Your task to perform on an android device: Search for 3d printer on AliExpress Image 0: 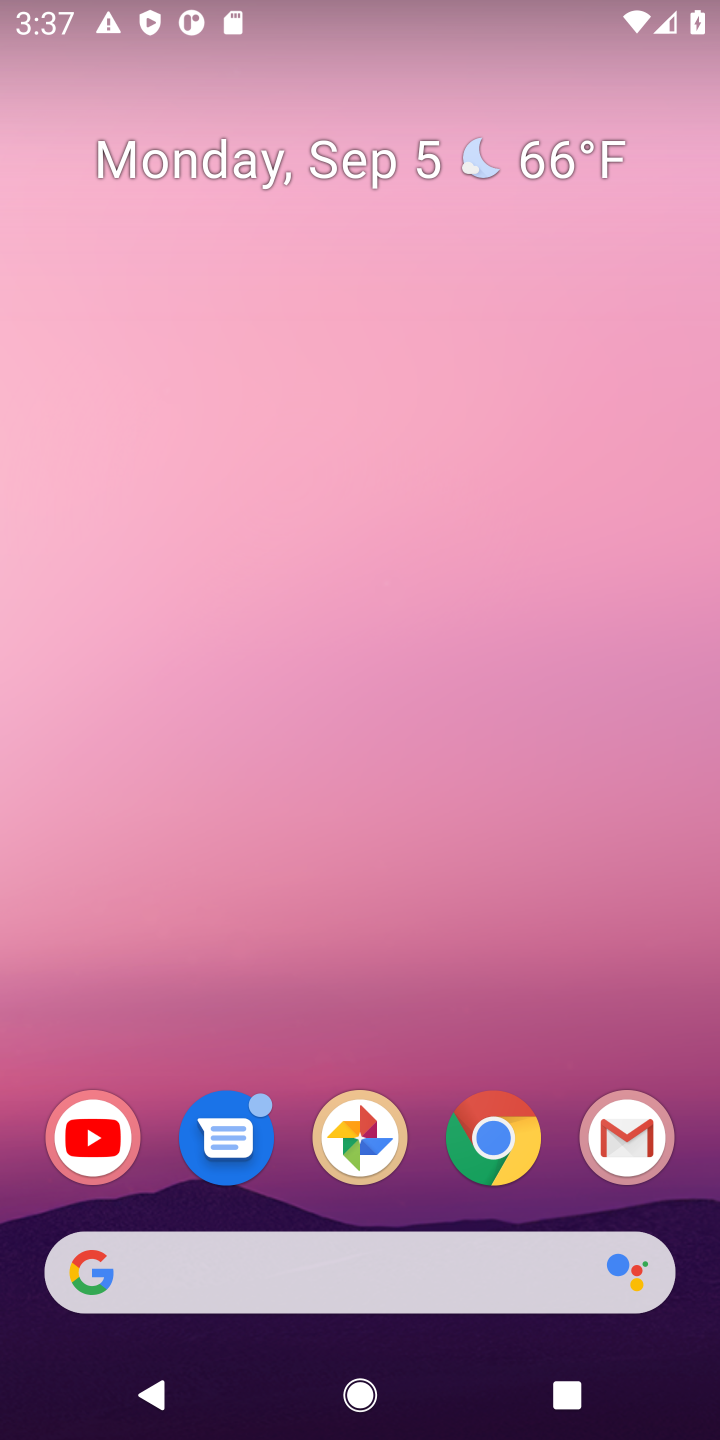
Step 0: click (462, 1158)
Your task to perform on an android device: Search for 3d printer on AliExpress Image 1: 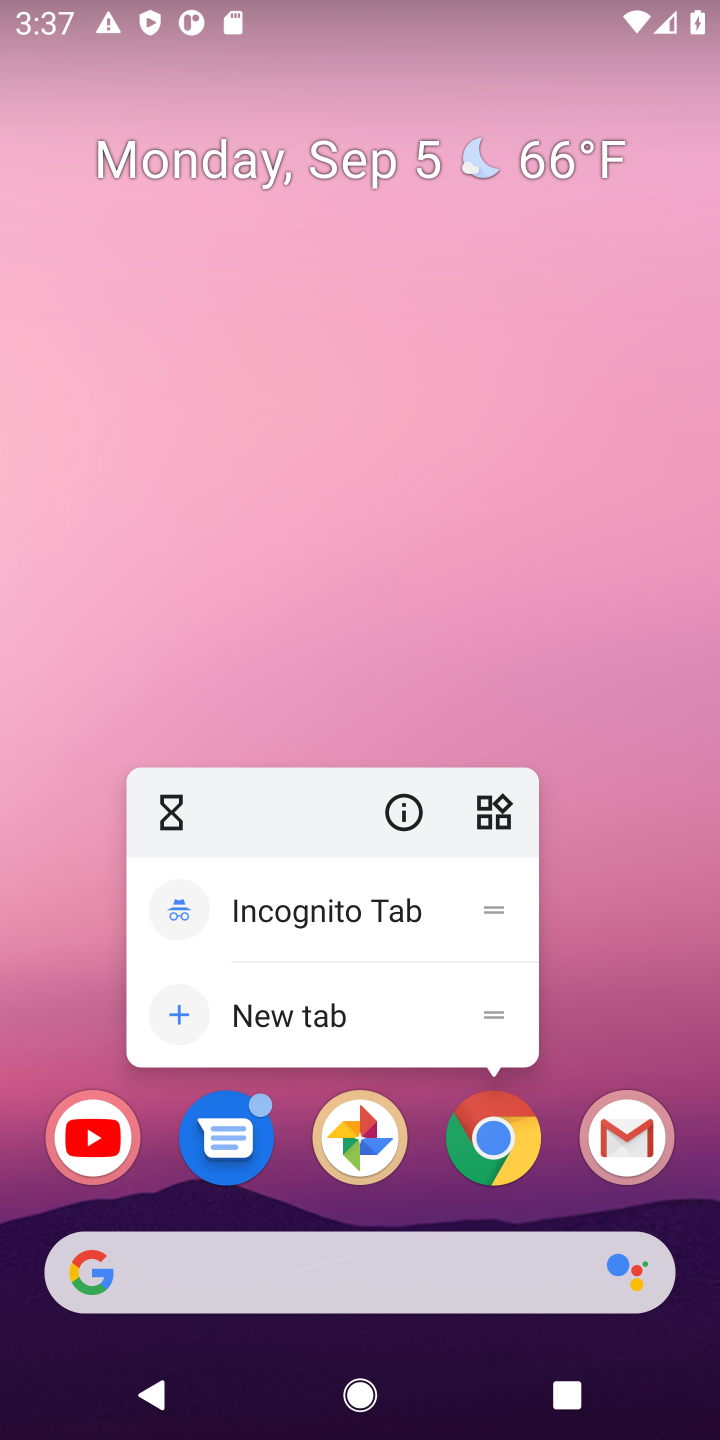
Step 1: click (522, 1174)
Your task to perform on an android device: Search for 3d printer on AliExpress Image 2: 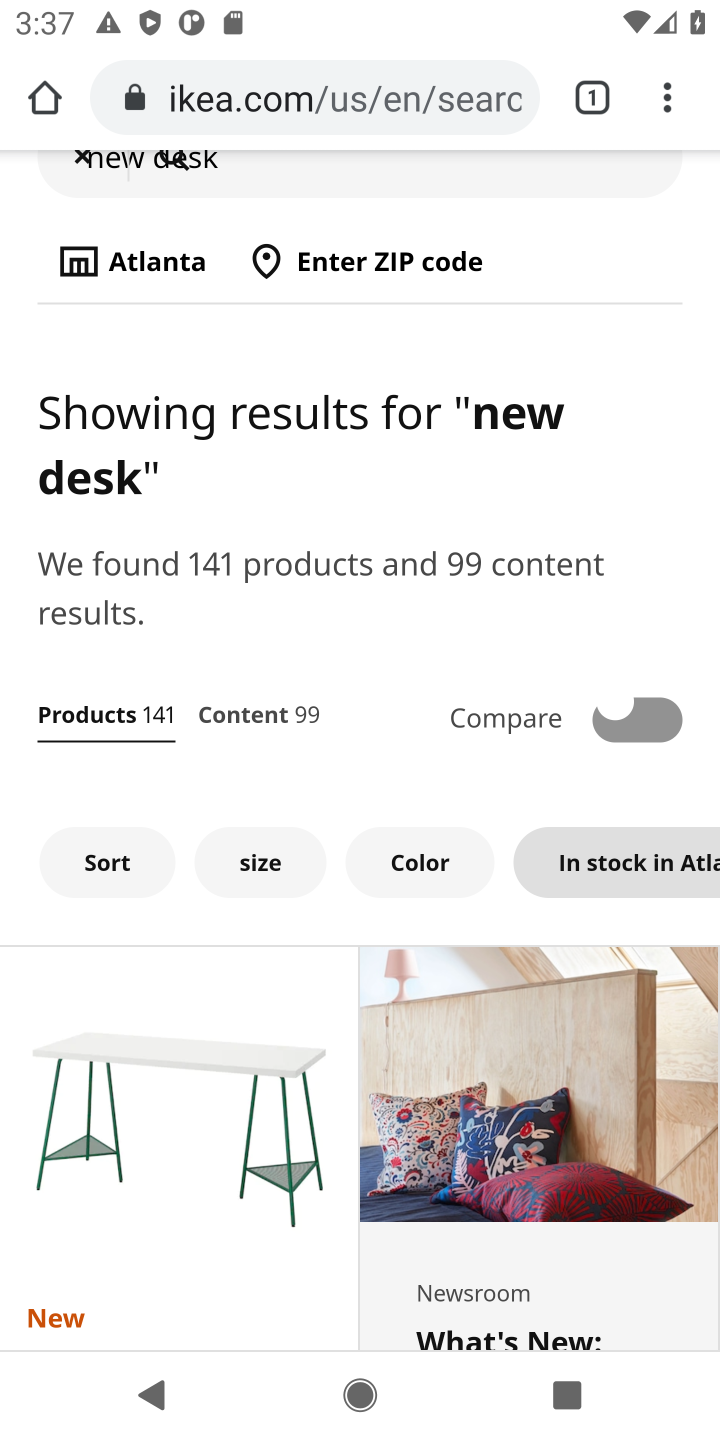
Step 2: click (405, 76)
Your task to perform on an android device: Search for 3d printer on AliExpress Image 3: 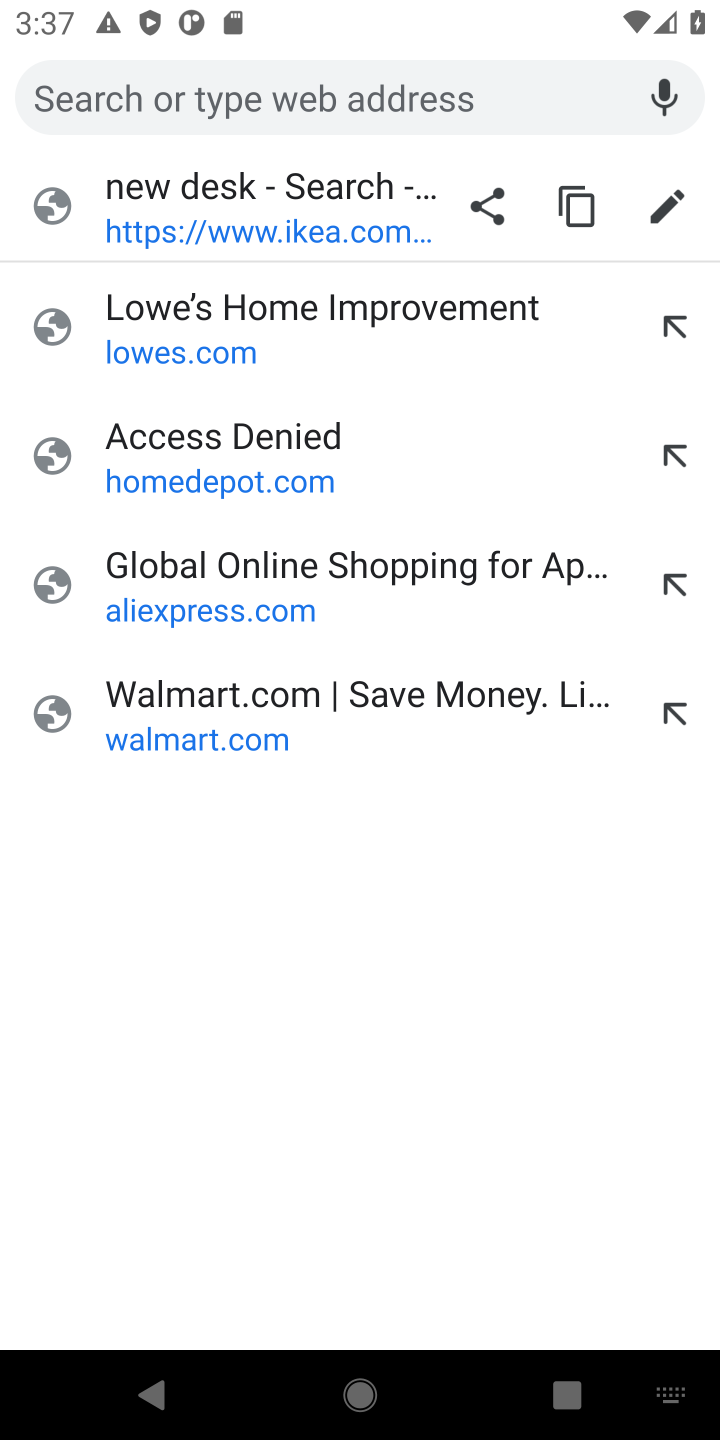
Step 3: type "aliexpress"
Your task to perform on an android device: Search for 3d printer on AliExpress Image 4: 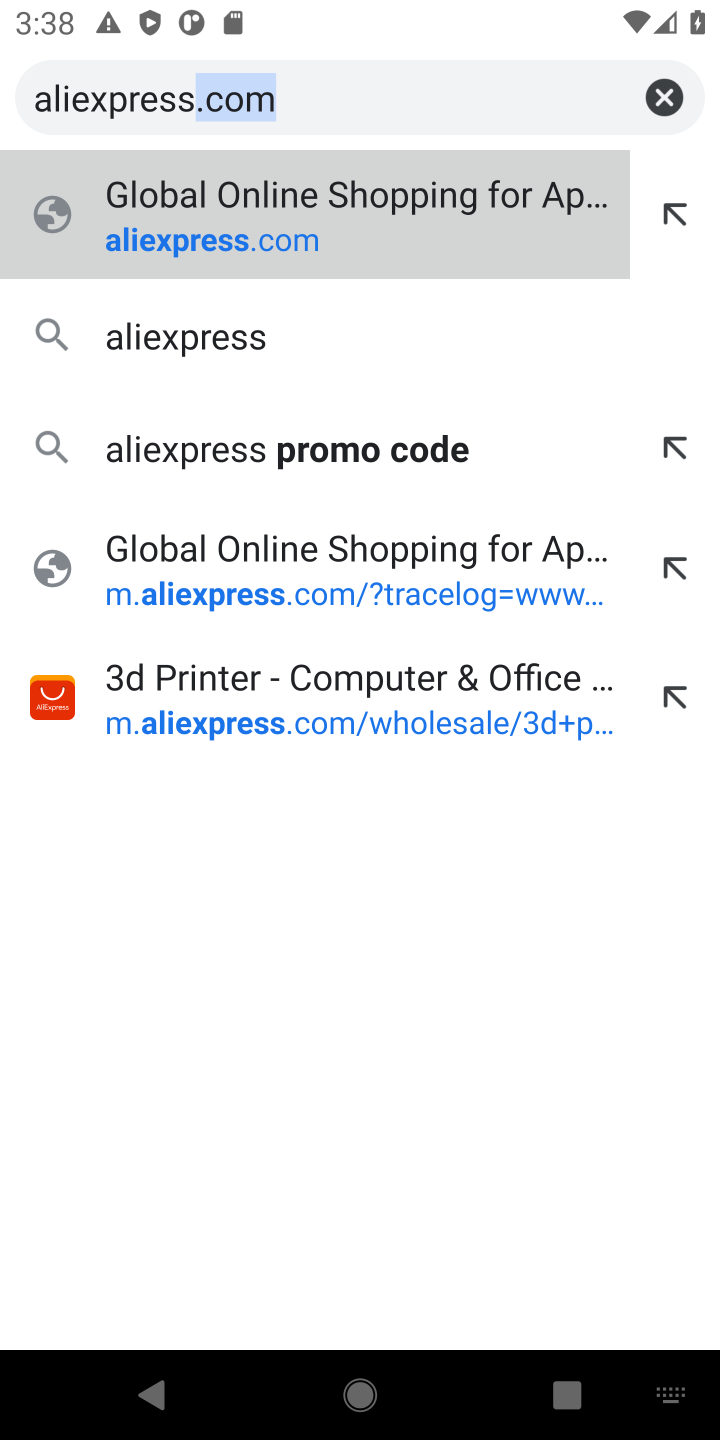
Step 4: click (360, 234)
Your task to perform on an android device: Search for 3d printer on AliExpress Image 5: 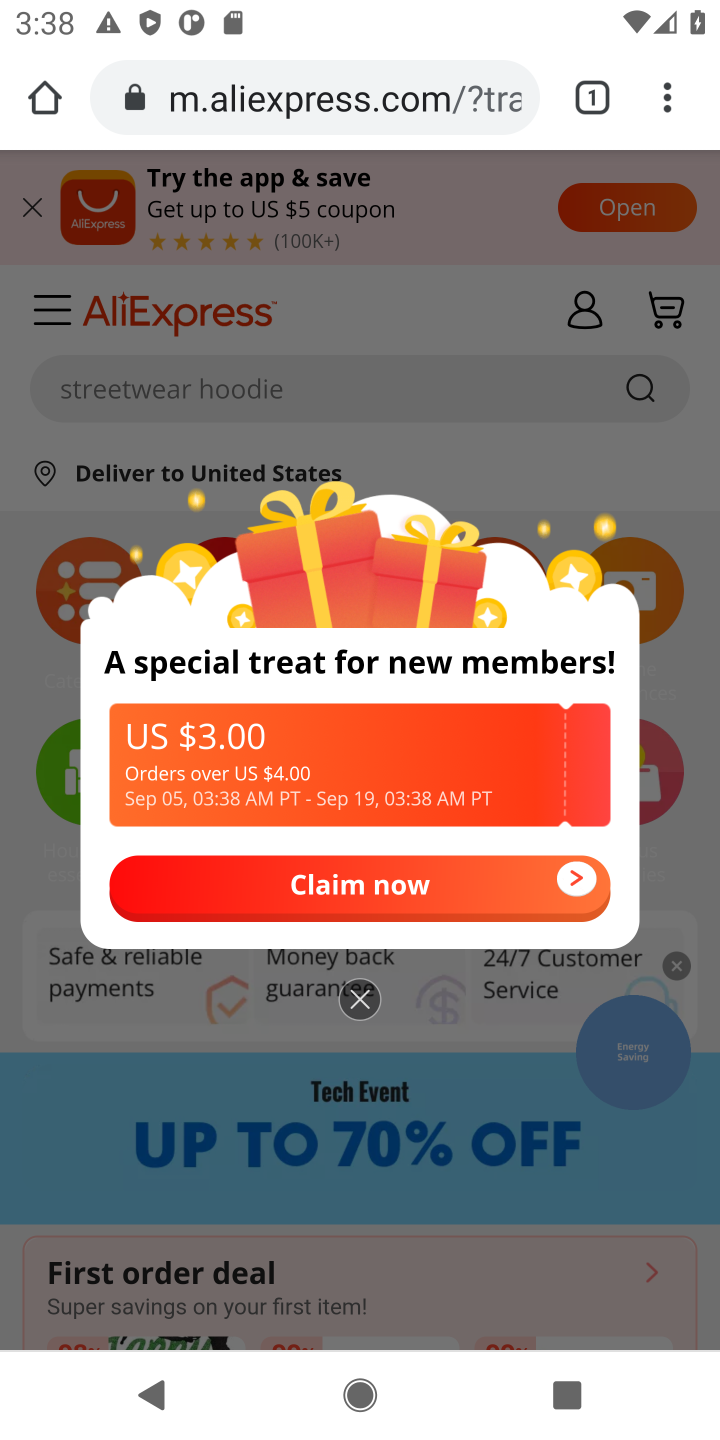
Step 5: click (366, 1017)
Your task to perform on an android device: Search for 3d printer on AliExpress Image 6: 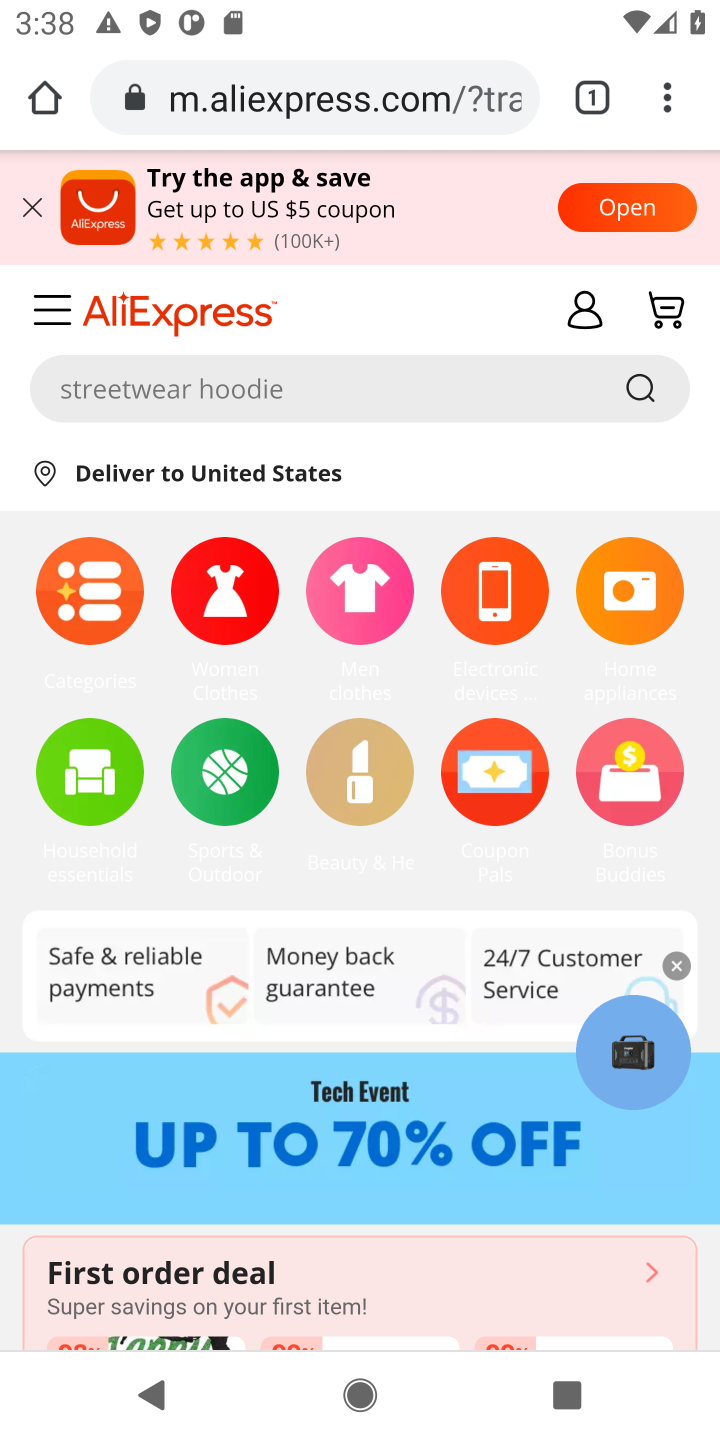
Step 6: click (374, 383)
Your task to perform on an android device: Search for 3d printer on AliExpress Image 7: 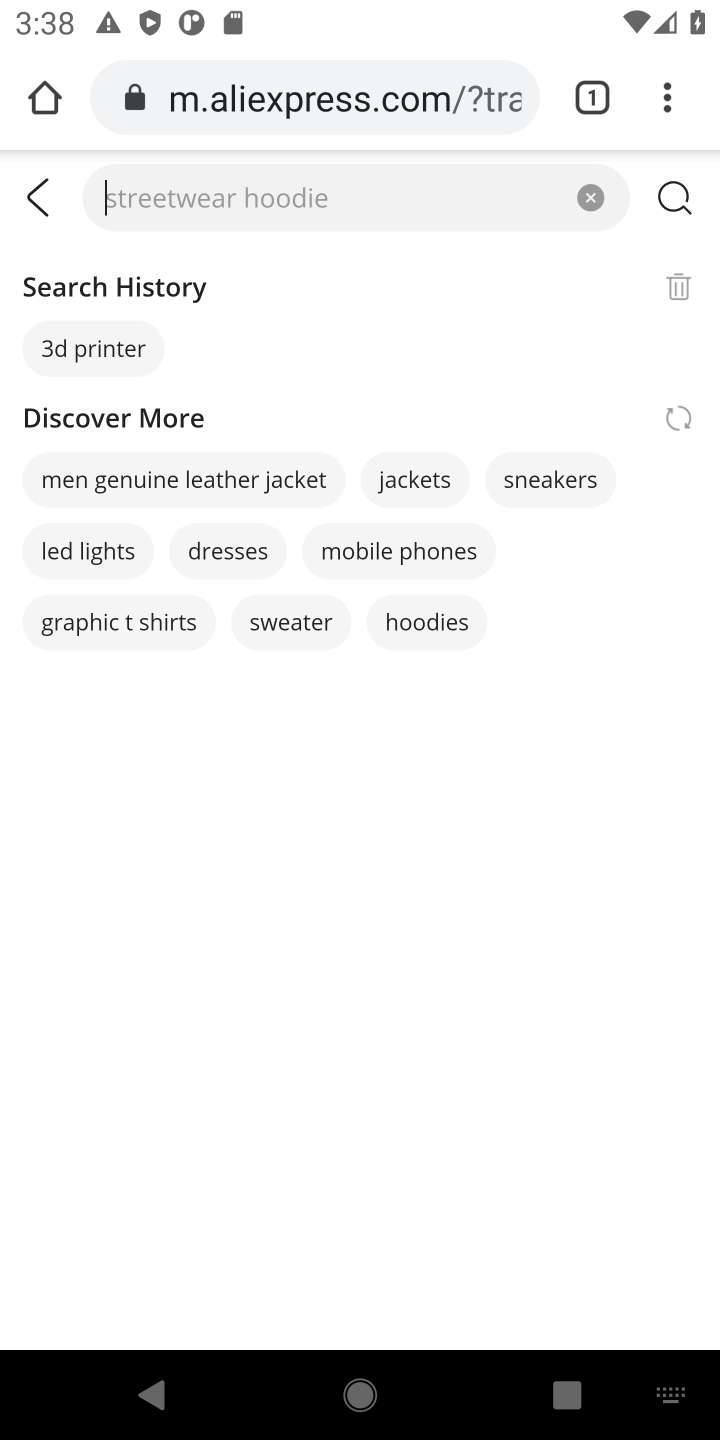
Step 7: type "3d printer"
Your task to perform on an android device: Search for 3d printer on AliExpress Image 8: 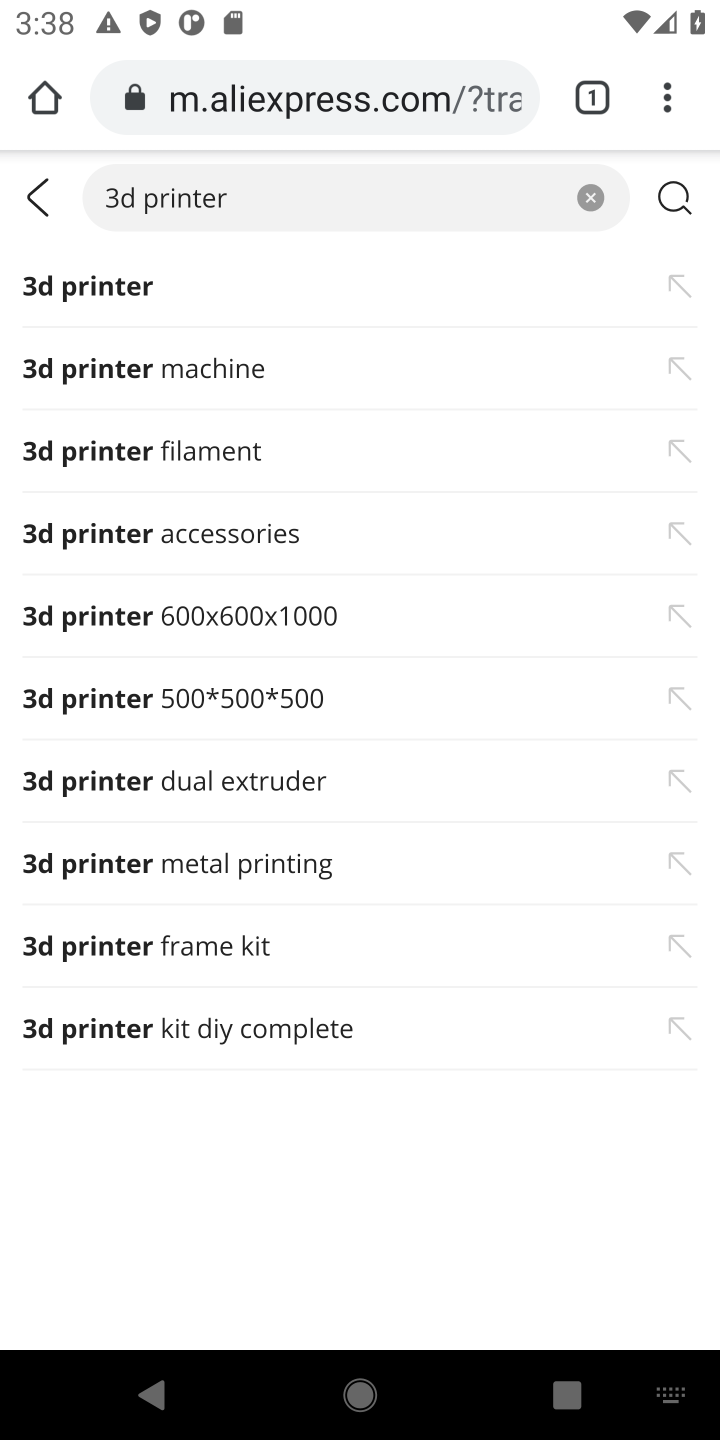
Step 8: click (254, 289)
Your task to perform on an android device: Search for 3d printer on AliExpress Image 9: 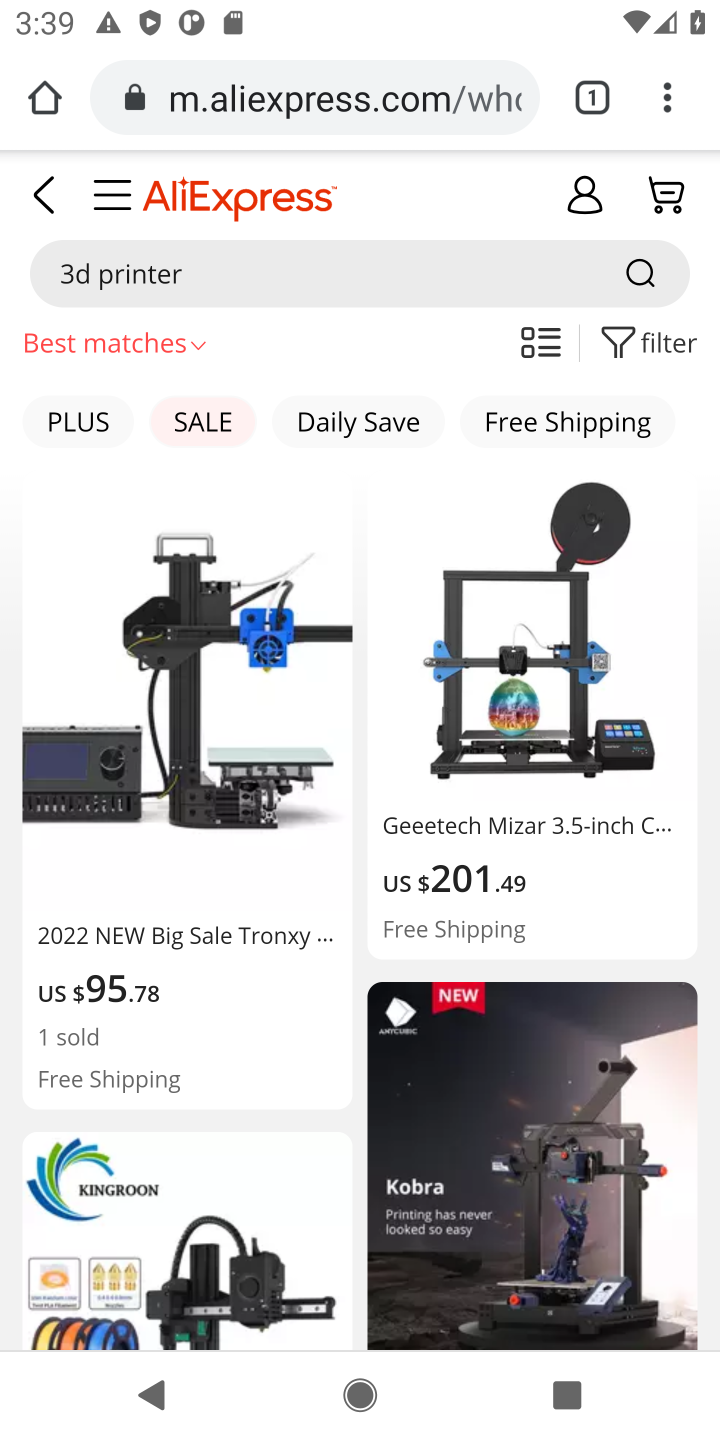
Step 9: task complete